Your task to perform on an android device: Play the last video I watched on Youtube Image 0: 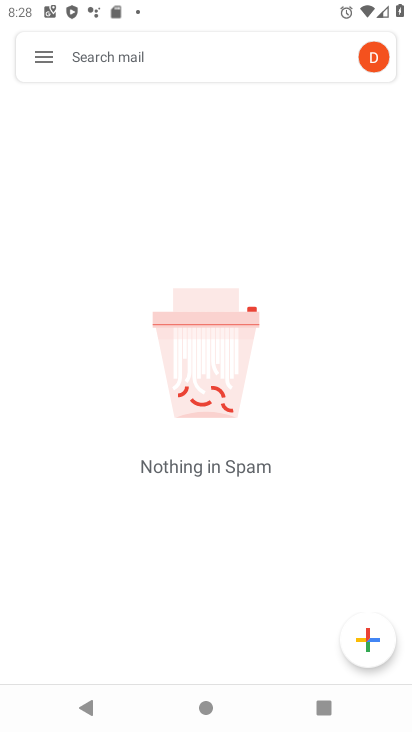
Step 0: press back button
Your task to perform on an android device: Play the last video I watched on Youtube Image 1: 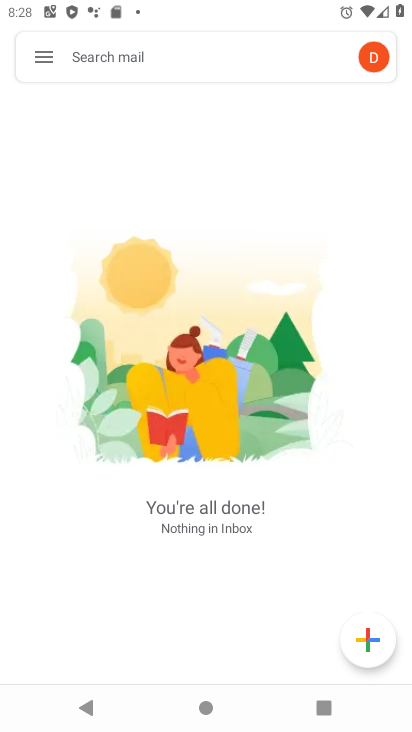
Step 1: press back button
Your task to perform on an android device: Play the last video I watched on Youtube Image 2: 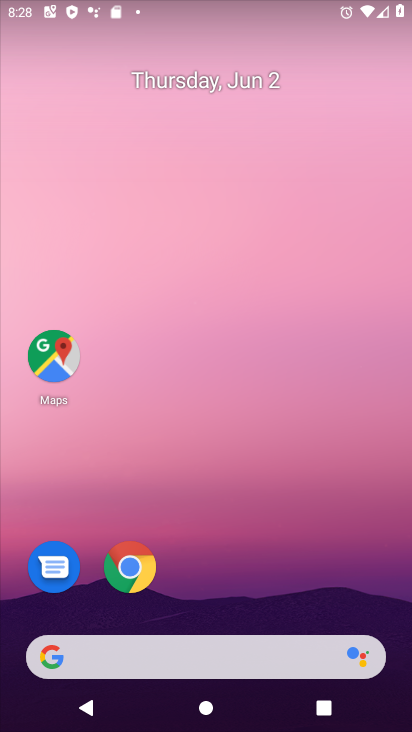
Step 2: drag from (242, 559) to (227, 188)
Your task to perform on an android device: Play the last video I watched on Youtube Image 3: 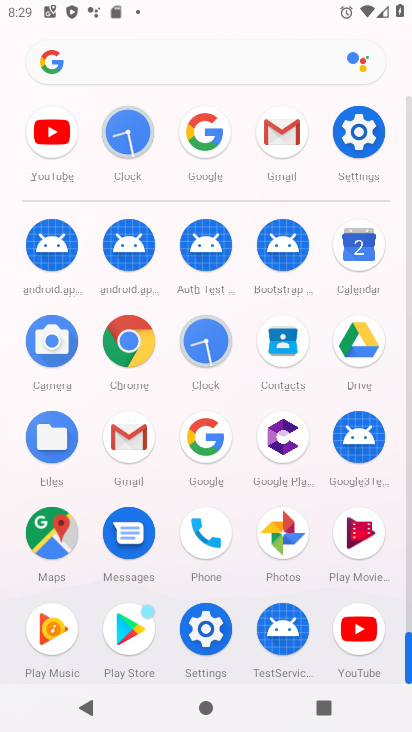
Step 3: click (51, 134)
Your task to perform on an android device: Play the last video I watched on Youtube Image 4: 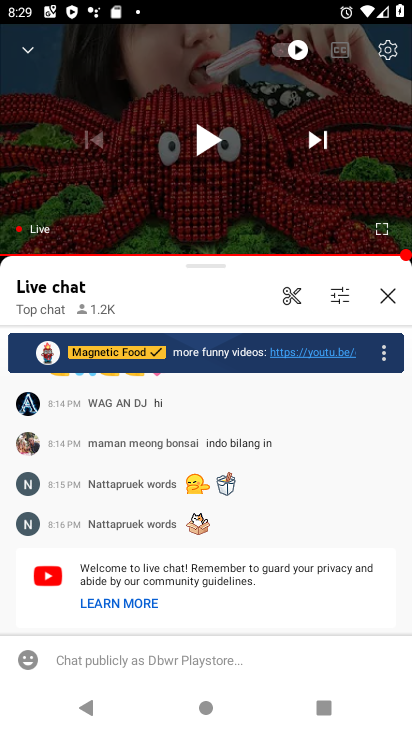
Step 4: click (207, 135)
Your task to perform on an android device: Play the last video I watched on Youtube Image 5: 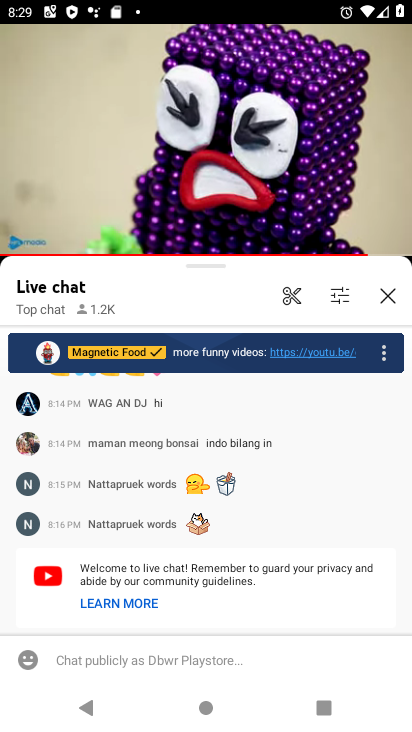
Step 5: click (207, 135)
Your task to perform on an android device: Play the last video I watched on Youtube Image 6: 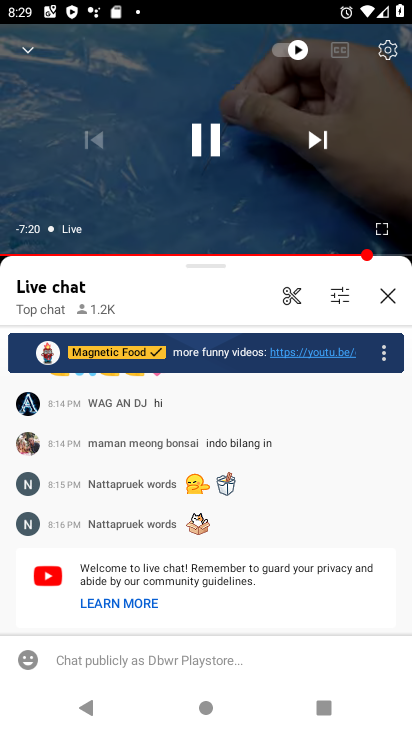
Step 6: click (207, 135)
Your task to perform on an android device: Play the last video I watched on Youtube Image 7: 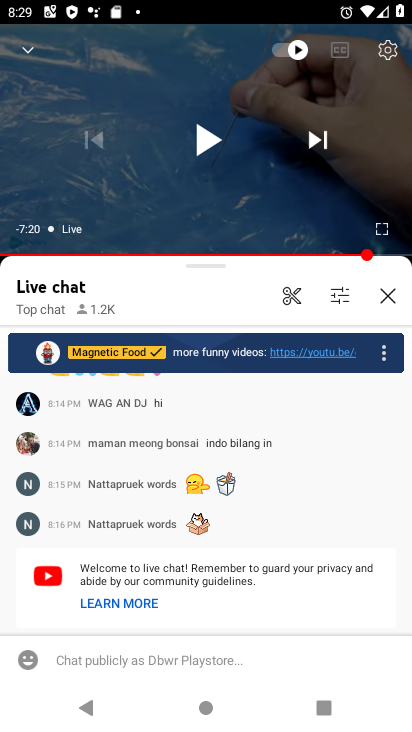
Step 7: task complete